Your task to perform on an android device: turn off improve location accuracy Image 0: 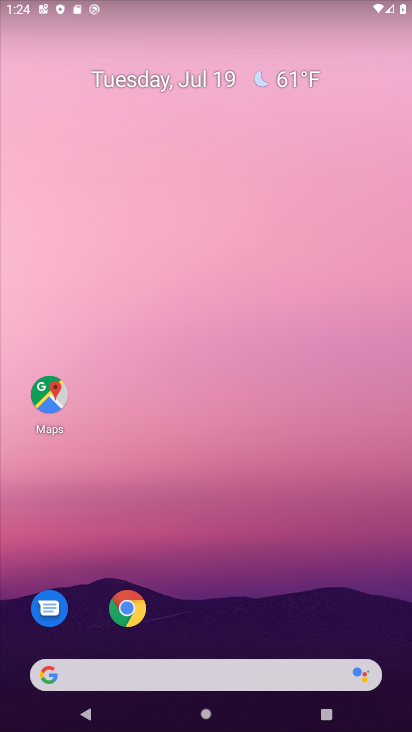
Step 0: drag from (303, 544) to (348, 32)
Your task to perform on an android device: turn off improve location accuracy Image 1: 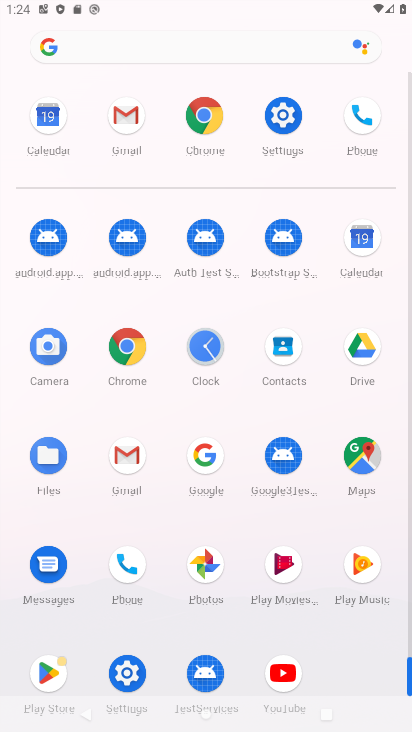
Step 1: click (286, 113)
Your task to perform on an android device: turn off improve location accuracy Image 2: 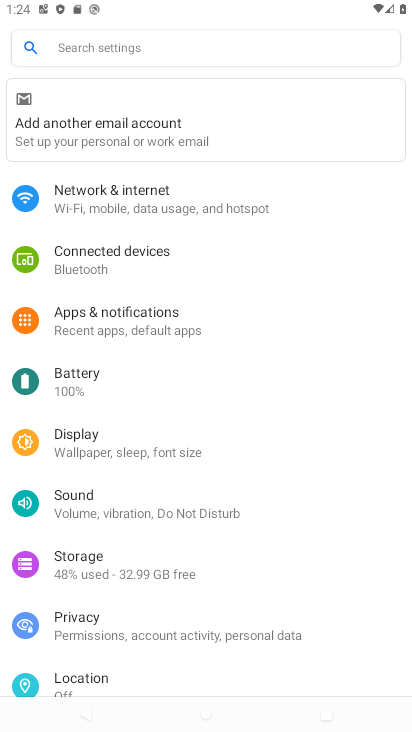
Step 2: drag from (122, 658) to (194, 257)
Your task to perform on an android device: turn off improve location accuracy Image 3: 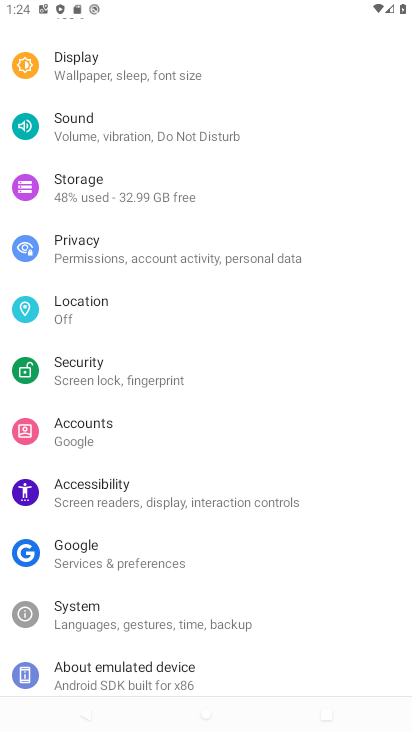
Step 3: click (73, 314)
Your task to perform on an android device: turn off improve location accuracy Image 4: 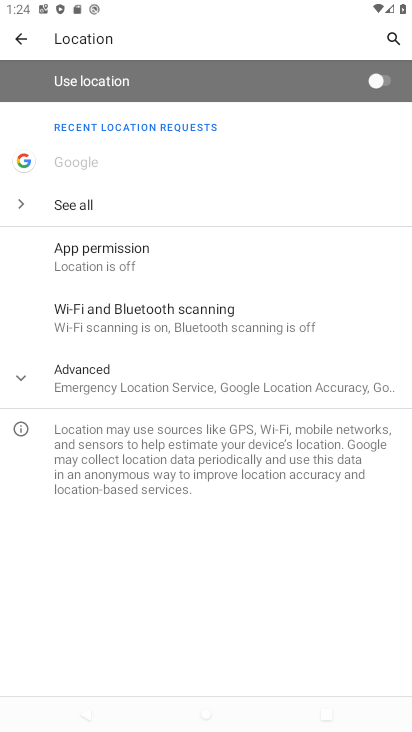
Step 4: click (96, 383)
Your task to perform on an android device: turn off improve location accuracy Image 5: 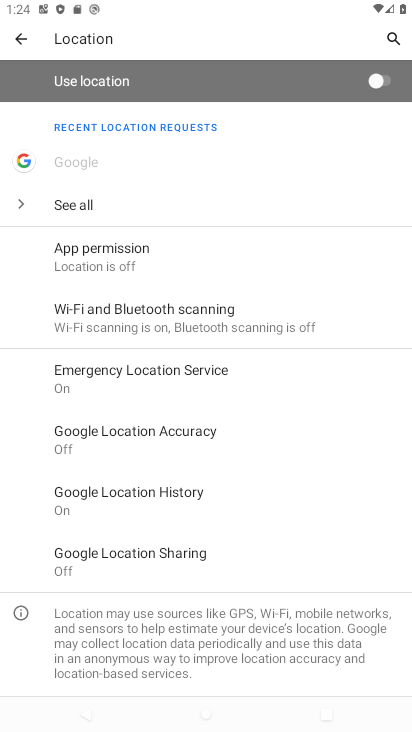
Step 5: click (120, 438)
Your task to perform on an android device: turn off improve location accuracy Image 6: 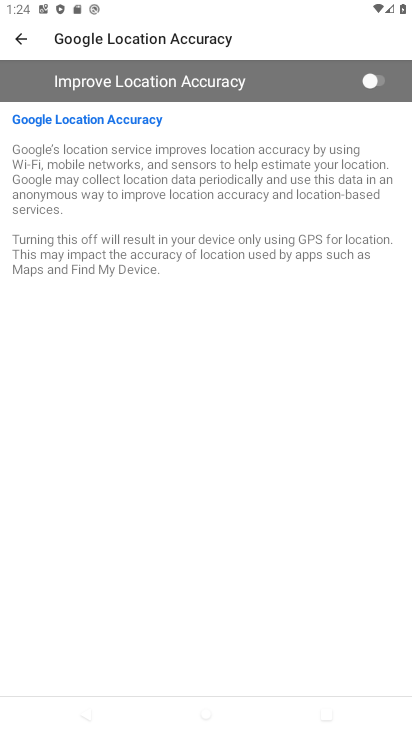
Step 6: task complete